Your task to perform on an android device: change timer sound Image 0: 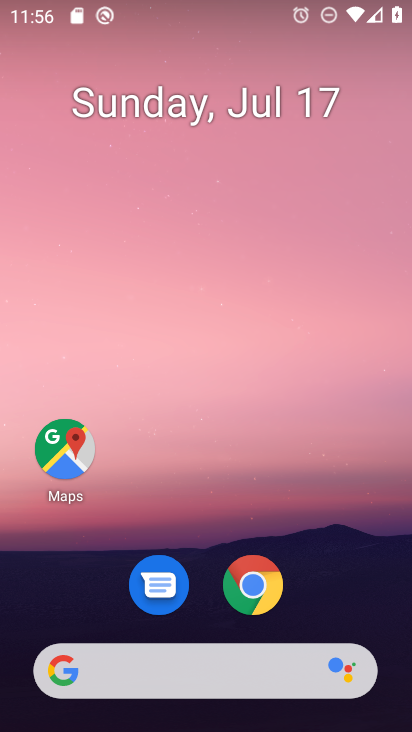
Step 0: drag from (343, 526) to (342, 42)
Your task to perform on an android device: change timer sound Image 1: 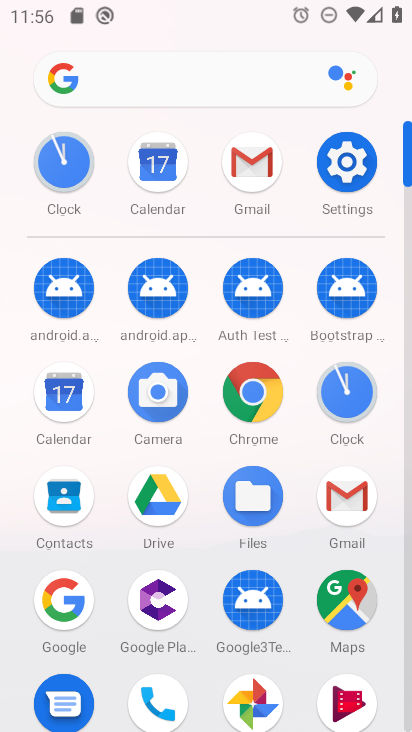
Step 1: click (346, 402)
Your task to perform on an android device: change timer sound Image 2: 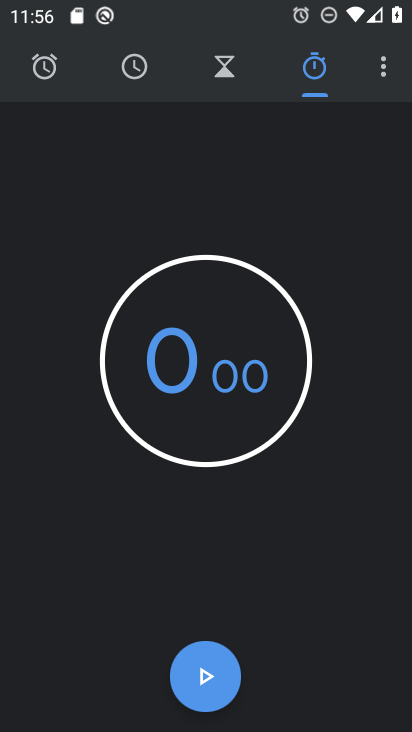
Step 2: click (387, 81)
Your task to perform on an android device: change timer sound Image 3: 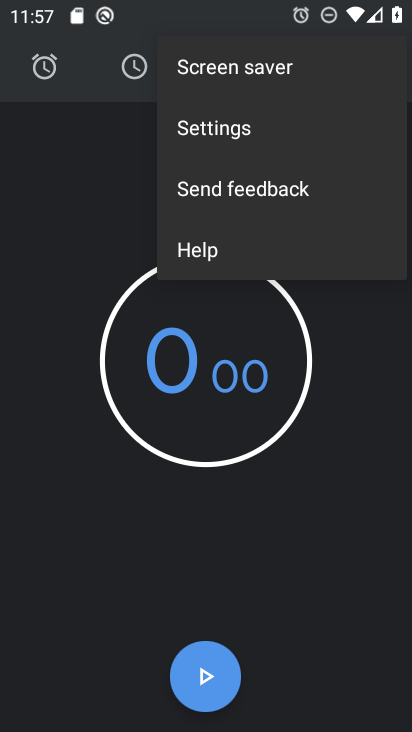
Step 3: click (320, 136)
Your task to perform on an android device: change timer sound Image 4: 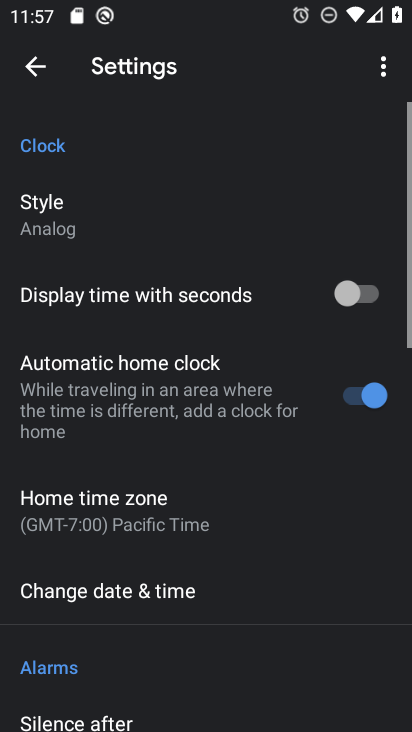
Step 4: drag from (293, 620) to (354, 65)
Your task to perform on an android device: change timer sound Image 5: 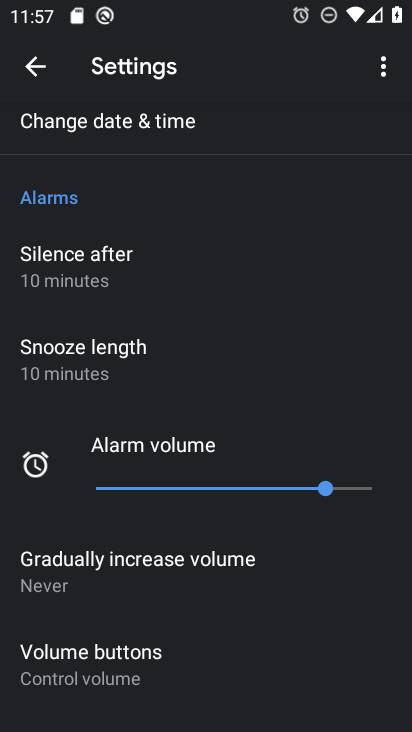
Step 5: drag from (199, 567) to (223, 52)
Your task to perform on an android device: change timer sound Image 6: 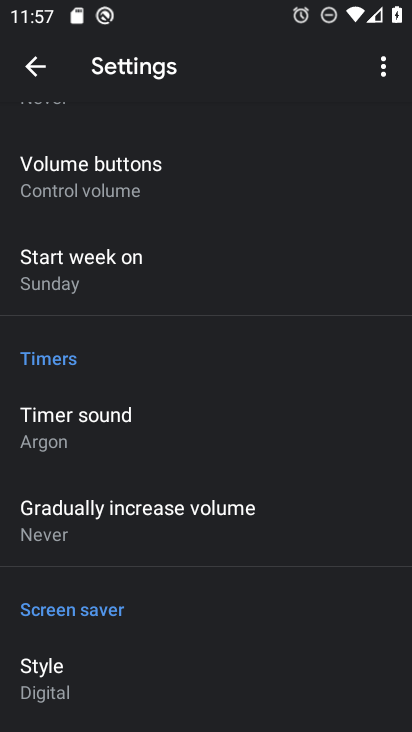
Step 6: drag from (96, 516) to (180, 167)
Your task to perform on an android device: change timer sound Image 7: 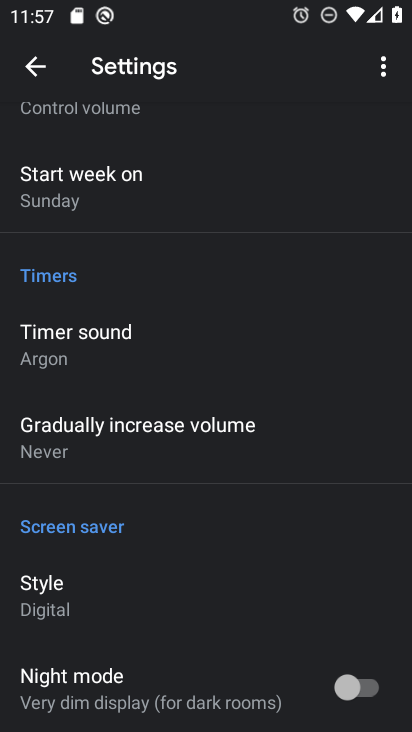
Step 7: click (105, 344)
Your task to perform on an android device: change timer sound Image 8: 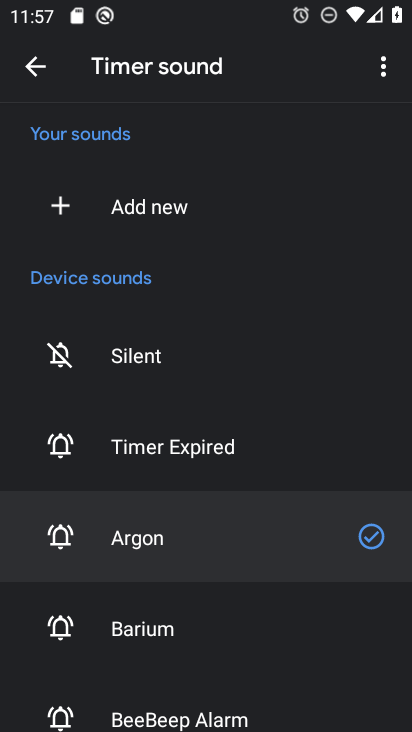
Step 8: click (266, 610)
Your task to perform on an android device: change timer sound Image 9: 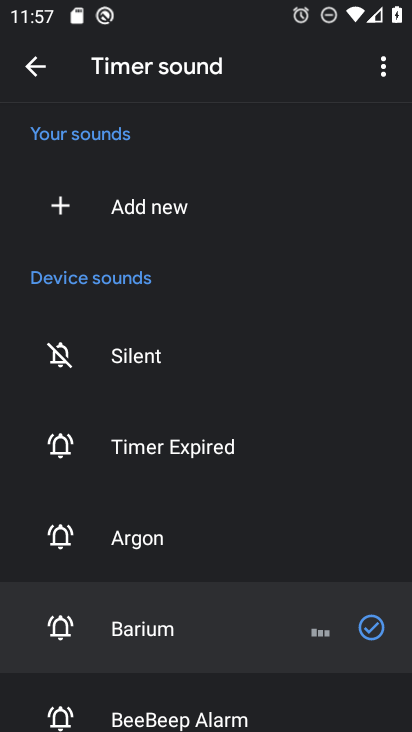
Step 9: task complete